Your task to perform on an android device: turn on sleep mode Image 0: 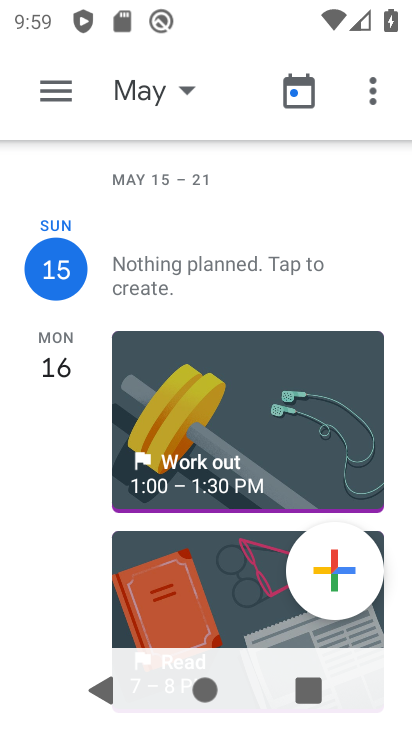
Step 0: press home button
Your task to perform on an android device: turn on sleep mode Image 1: 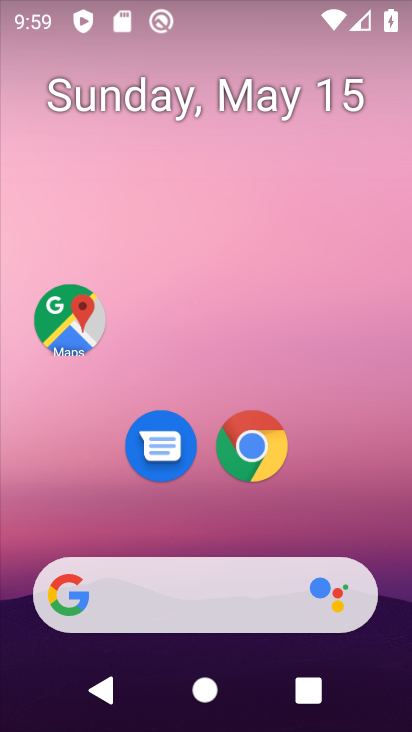
Step 1: drag from (297, 387) to (296, 119)
Your task to perform on an android device: turn on sleep mode Image 2: 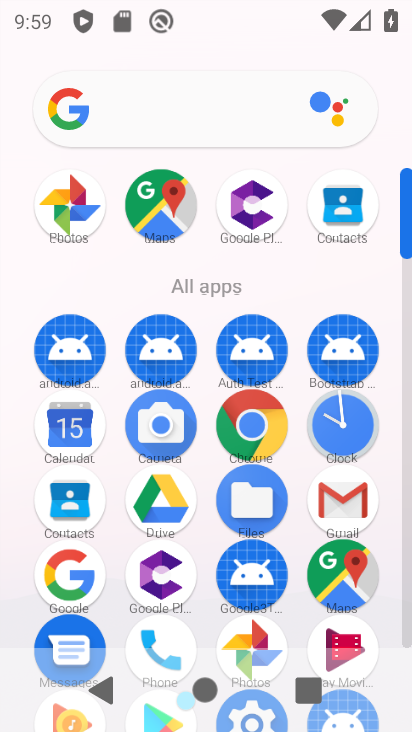
Step 2: drag from (214, 559) to (218, 179)
Your task to perform on an android device: turn on sleep mode Image 3: 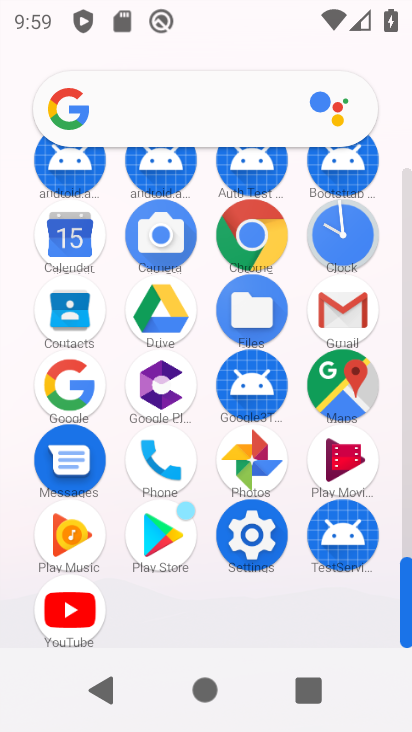
Step 3: click (249, 540)
Your task to perform on an android device: turn on sleep mode Image 4: 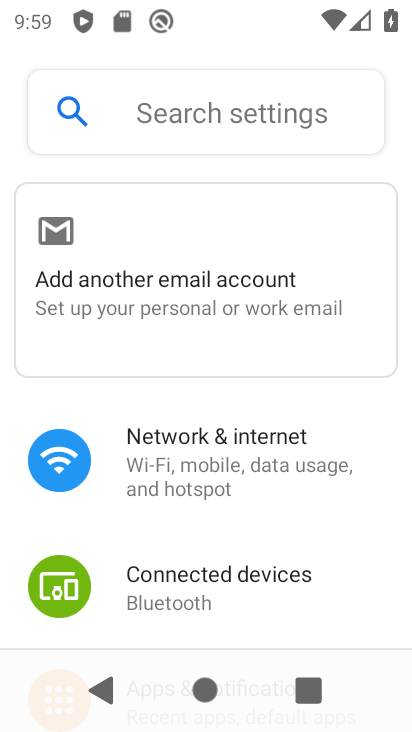
Step 4: drag from (121, 507) to (148, 119)
Your task to perform on an android device: turn on sleep mode Image 5: 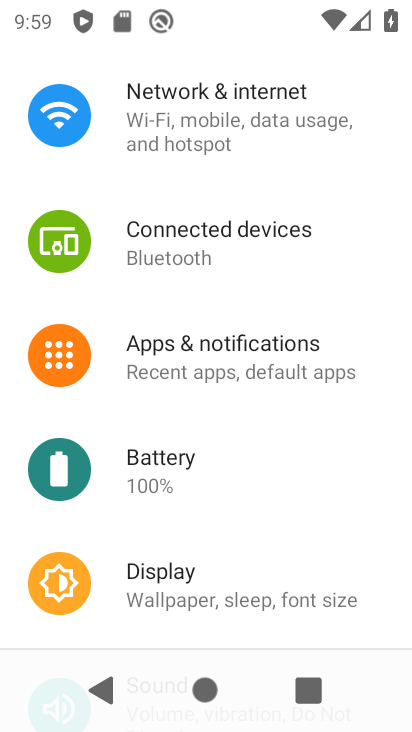
Step 5: click (211, 578)
Your task to perform on an android device: turn on sleep mode Image 6: 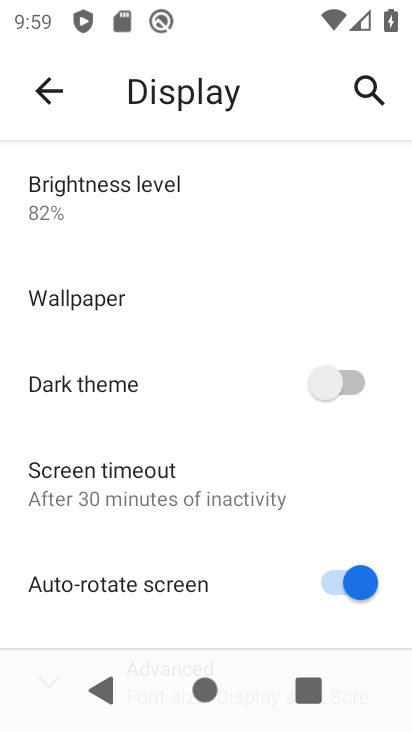
Step 6: drag from (241, 538) to (225, 127)
Your task to perform on an android device: turn on sleep mode Image 7: 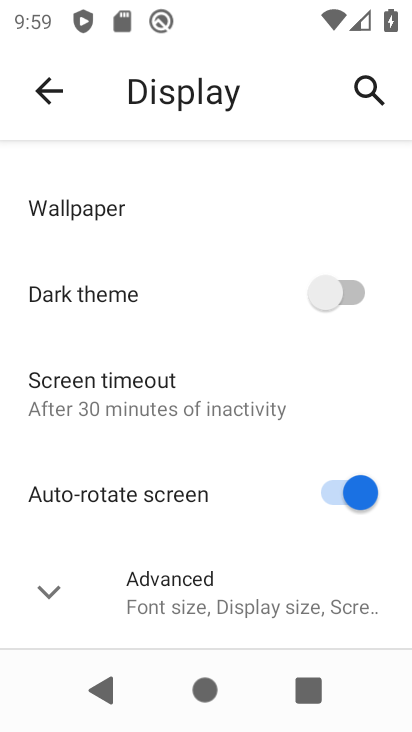
Step 7: click (53, 591)
Your task to perform on an android device: turn on sleep mode Image 8: 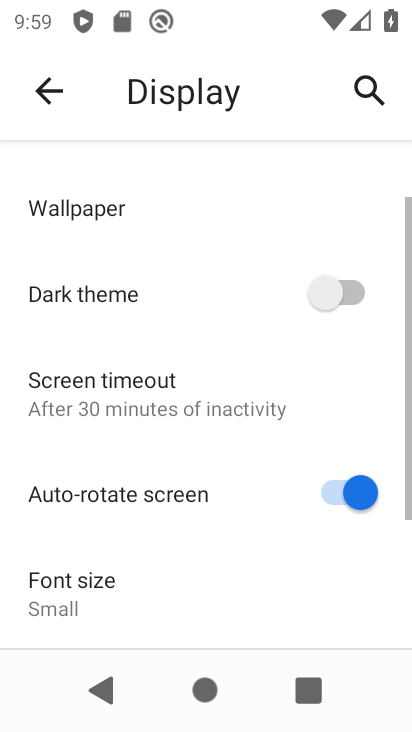
Step 8: task complete